Your task to perform on an android device: Open the stopwatch Image 0: 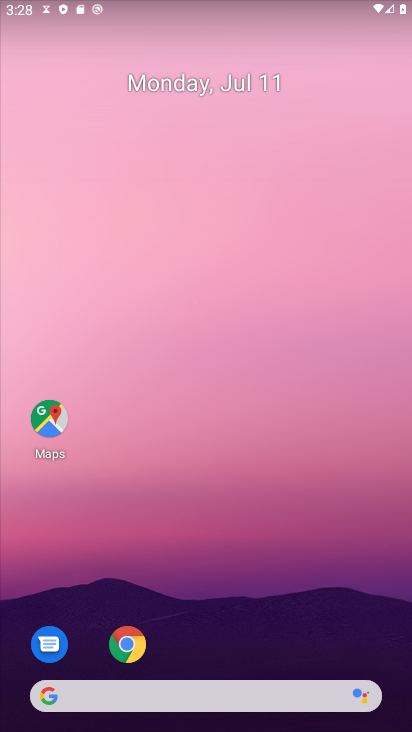
Step 0: click (231, 719)
Your task to perform on an android device: Open the stopwatch Image 1: 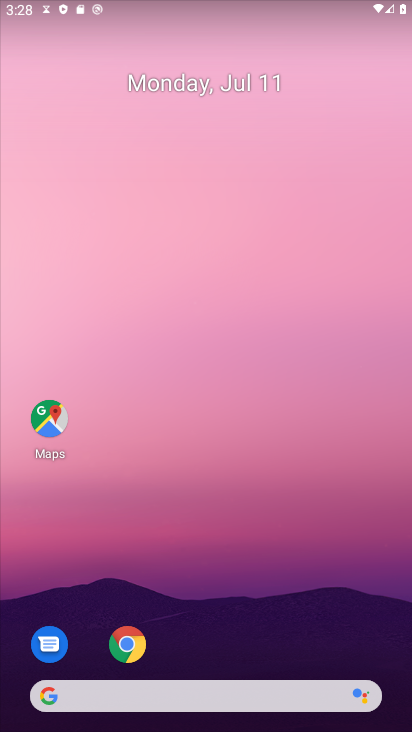
Step 1: drag from (189, 280) to (183, 76)
Your task to perform on an android device: Open the stopwatch Image 2: 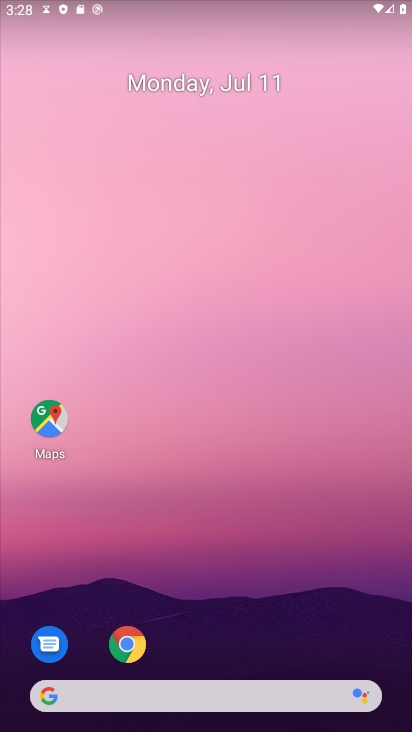
Step 2: drag from (252, 729) to (254, 248)
Your task to perform on an android device: Open the stopwatch Image 3: 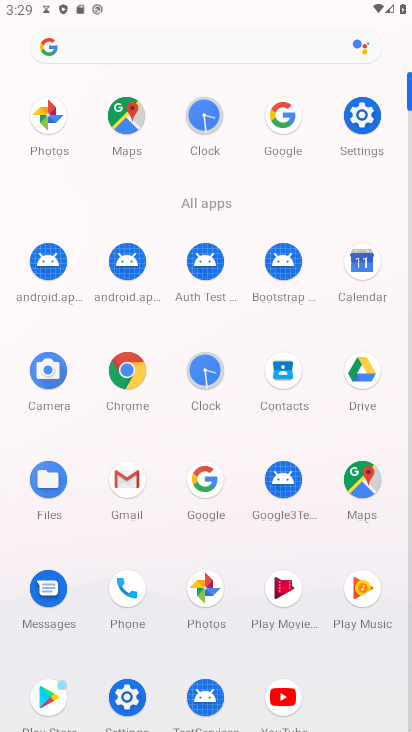
Step 3: click (206, 380)
Your task to perform on an android device: Open the stopwatch Image 4: 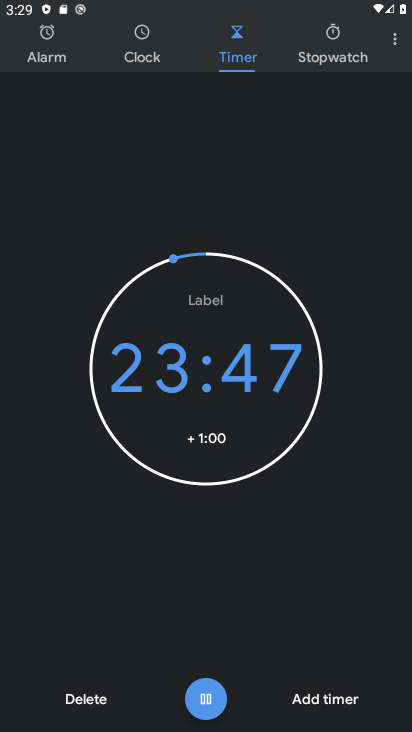
Step 4: click (334, 51)
Your task to perform on an android device: Open the stopwatch Image 5: 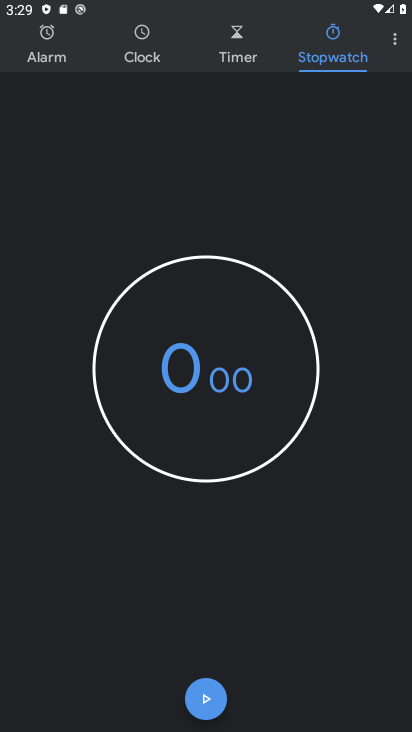
Step 5: task complete